Your task to perform on an android device: Open Google Chrome Image 0: 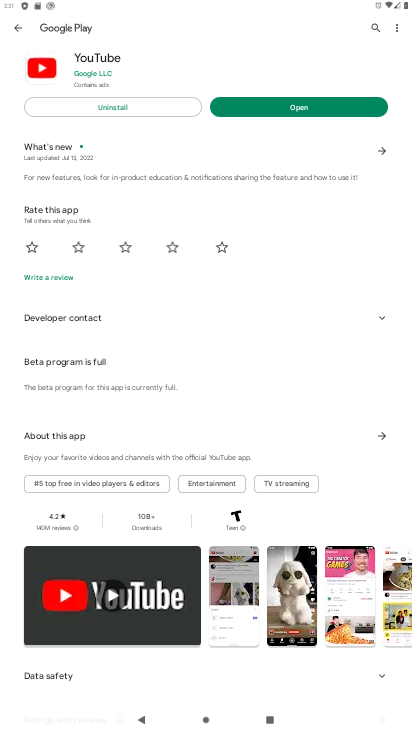
Step 0: click (205, 621)
Your task to perform on an android device: Open Google Chrome Image 1: 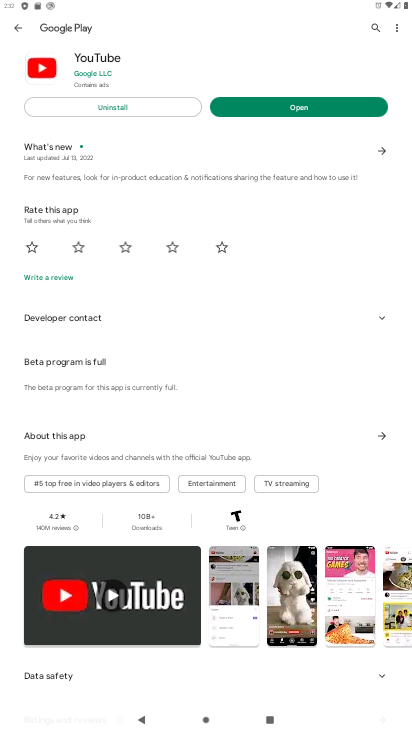
Step 1: press home button
Your task to perform on an android device: Open Google Chrome Image 2: 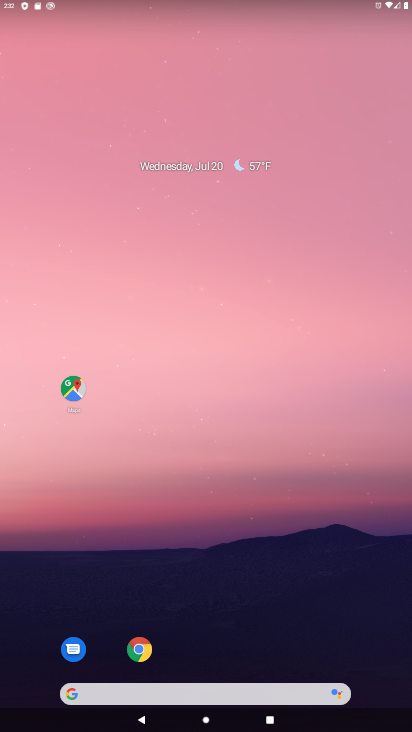
Step 2: click (137, 652)
Your task to perform on an android device: Open Google Chrome Image 3: 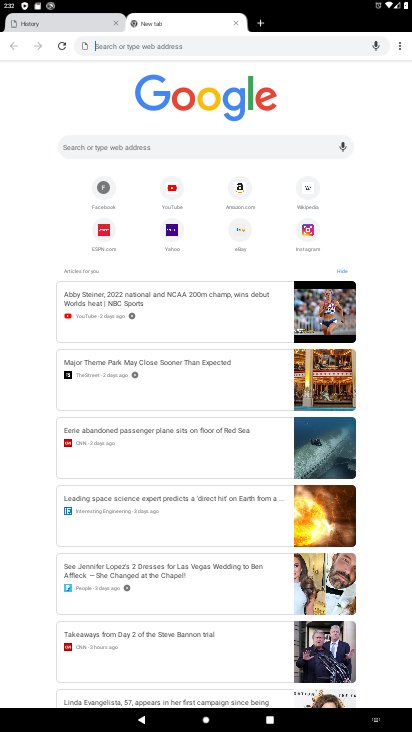
Step 3: task complete